Your task to perform on an android device: Open the phone app and click the voicemail tab. Image 0: 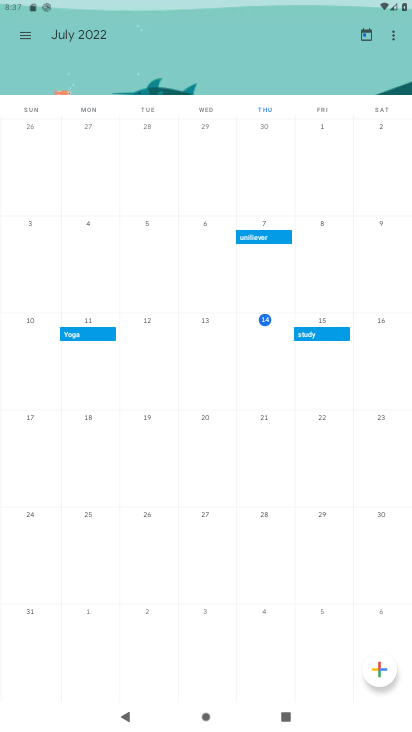
Step 0: press home button
Your task to perform on an android device: Open the phone app and click the voicemail tab. Image 1: 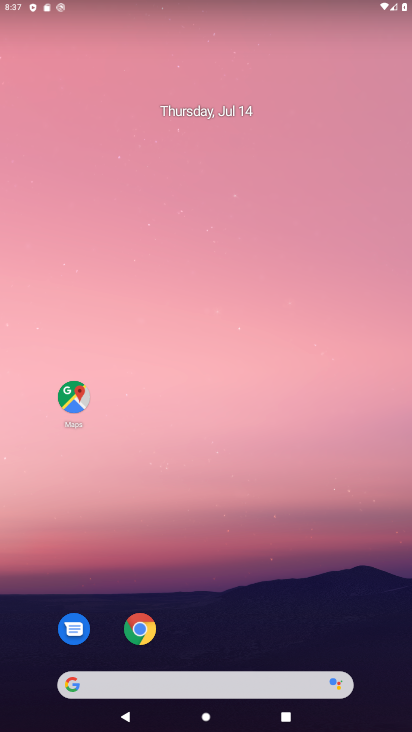
Step 1: drag from (285, 283) to (296, 147)
Your task to perform on an android device: Open the phone app and click the voicemail tab. Image 2: 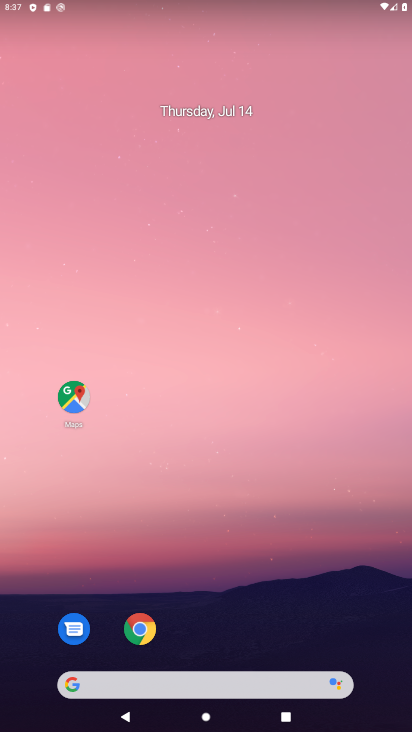
Step 2: drag from (356, 579) to (343, 24)
Your task to perform on an android device: Open the phone app and click the voicemail tab. Image 3: 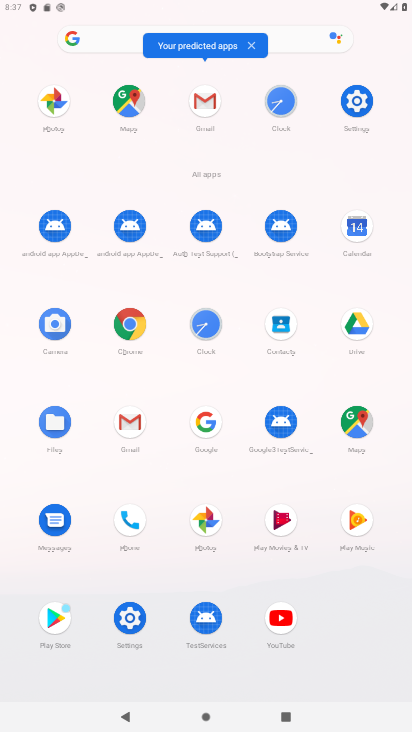
Step 3: click (134, 523)
Your task to perform on an android device: Open the phone app and click the voicemail tab. Image 4: 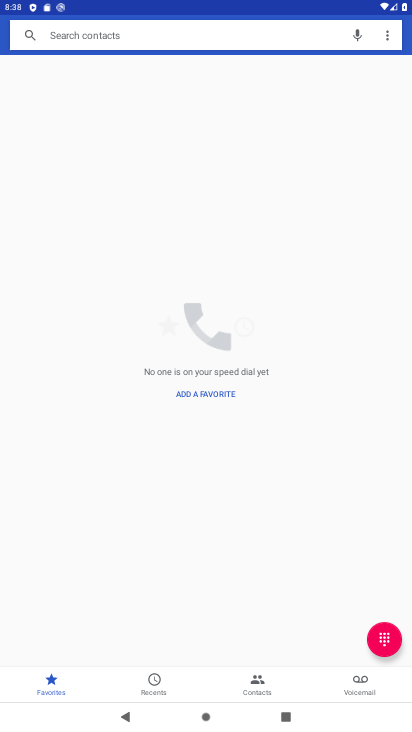
Step 4: click (368, 689)
Your task to perform on an android device: Open the phone app and click the voicemail tab. Image 5: 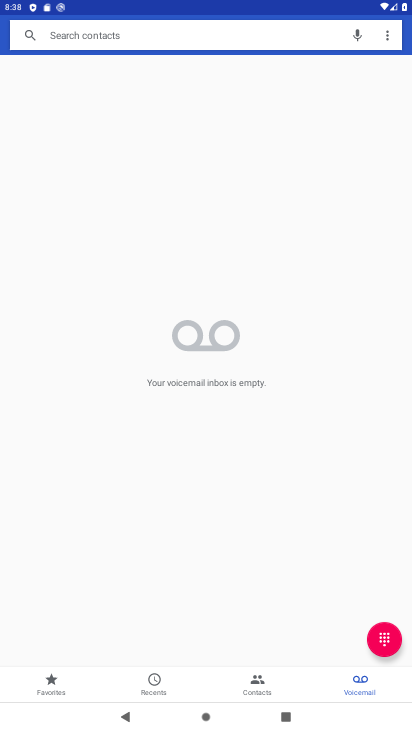
Step 5: task complete